Your task to perform on an android device: change your default location settings in chrome Image 0: 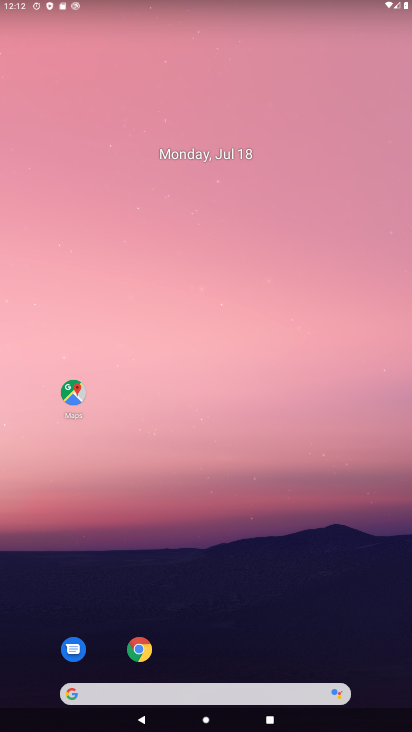
Step 0: drag from (170, 410) to (129, 150)
Your task to perform on an android device: change your default location settings in chrome Image 1: 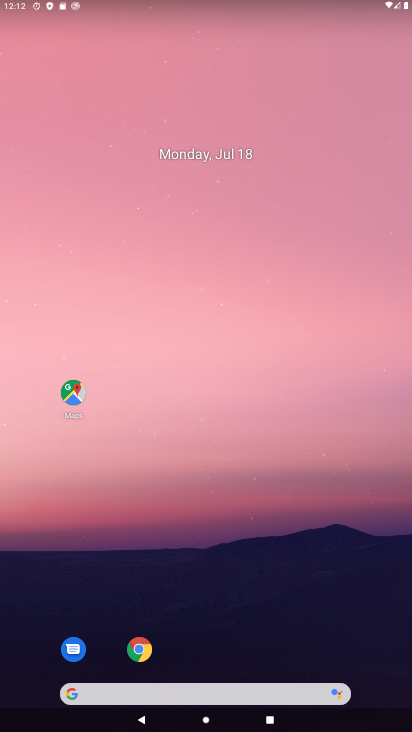
Step 1: drag from (303, 672) to (276, 122)
Your task to perform on an android device: change your default location settings in chrome Image 2: 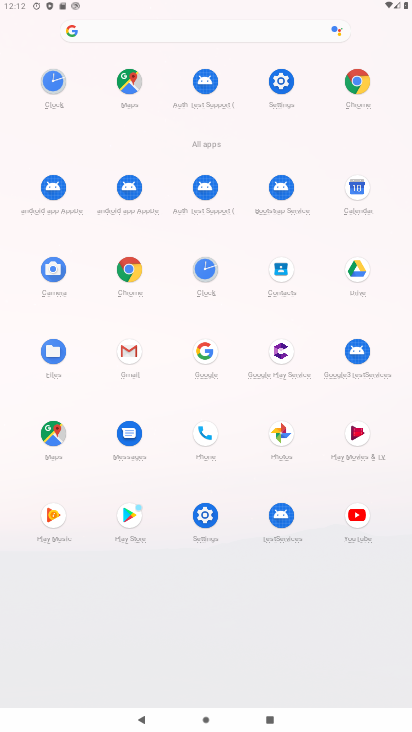
Step 2: drag from (221, 515) to (192, 211)
Your task to perform on an android device: change your default location settings in chrome Image 3: 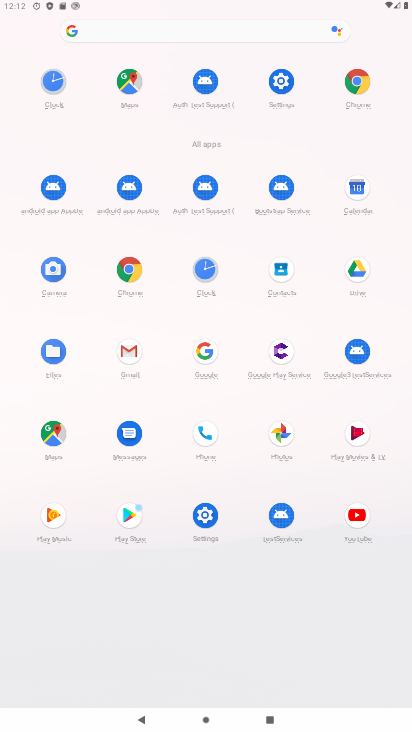
Step 3: click (355, 84)
Your task to perform on an android device: change your default location settings in chrome Image 4: 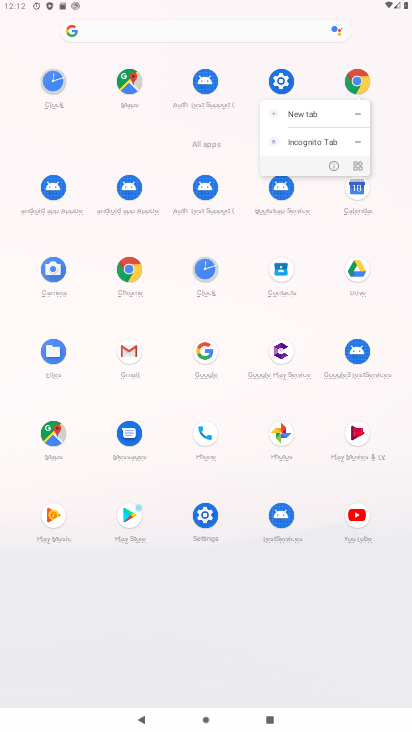
Step 4: click (355, 84)
Your task to perform on an android device: change your default location settings in chrome Image 5: 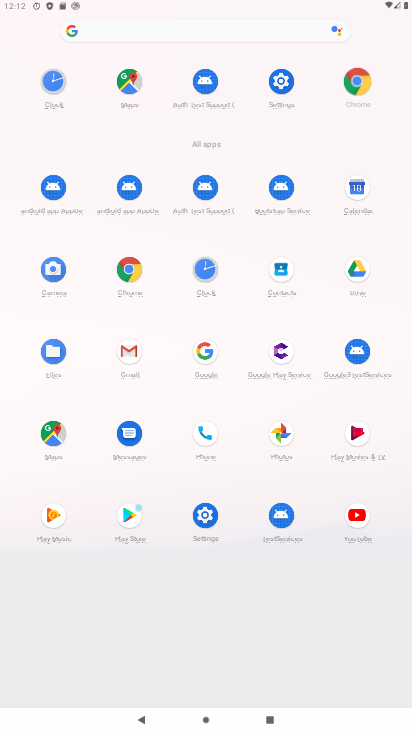
Step 5: click (356, 83)
Your task to perform on an android device: change your default location settings in chrome Image 6: 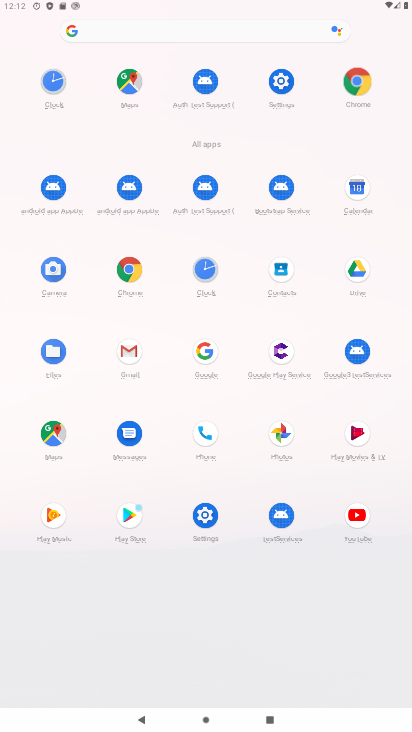
Step 6: click (353, 85)
Your task to perform on an android device: change your default location settings in chrome Image 7: 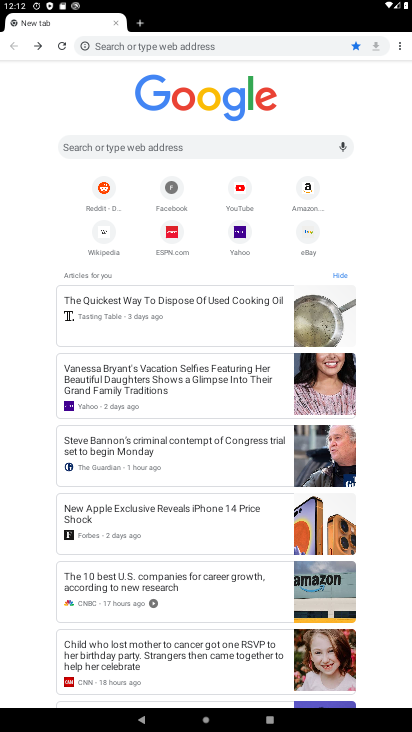
Step 7: drag from (400, 42) to (300, 234)
Your task to perform on an android device: change your default location settings in chrome Image 8: 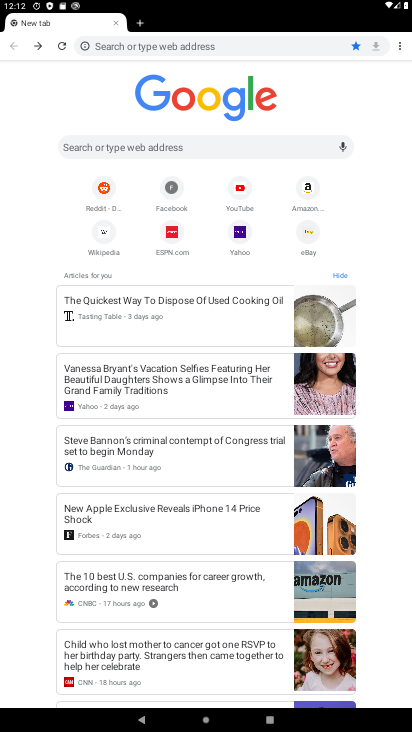
Step 8: click (299, 235)
Your task to perform on an android device: change your default location settings in chrome Image 9: 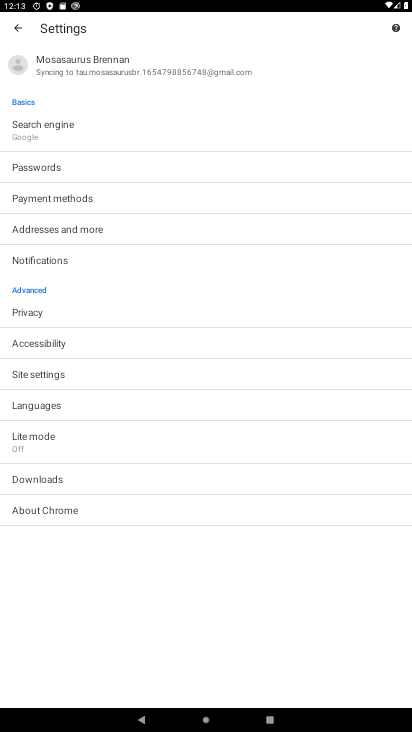
Step 9: click (31, 365)
Your task to perform on an android device: change your default location settings in chrome Image 10: 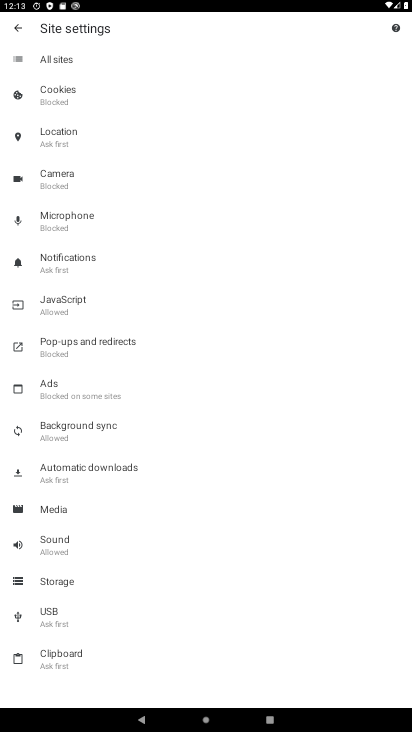
Step 10: click (49, 144)
Your task to perform on an android device: change your default location settings in chrome Image 11: 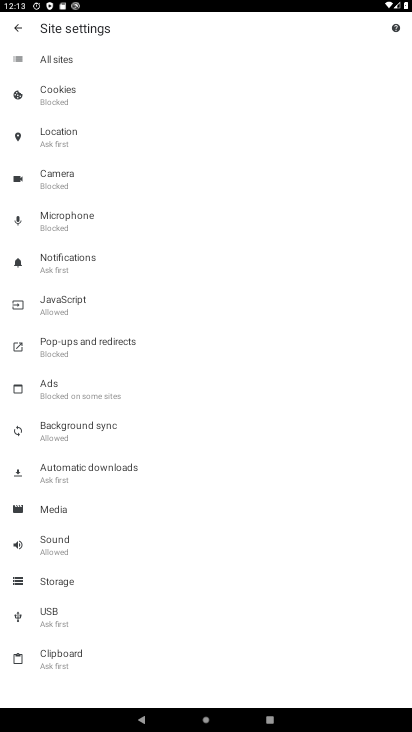
Step 11: click (49, 143)
Your task to perform on an android device: change your default location settings in chrome Image 12: 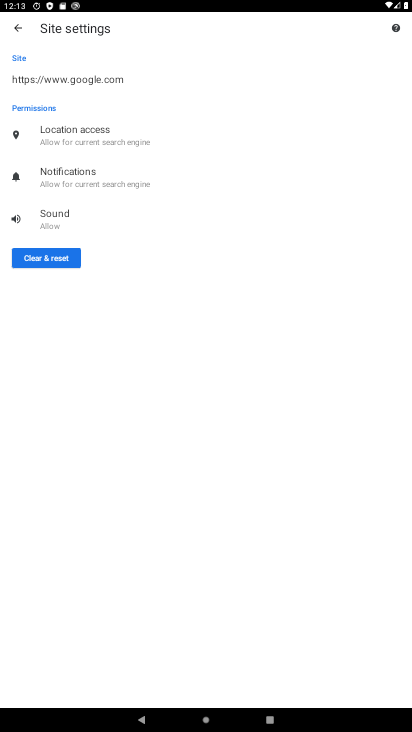
Step 12: click (47, 257)
Your task to perform on an android device: change your default location settings in chrome Image 13: 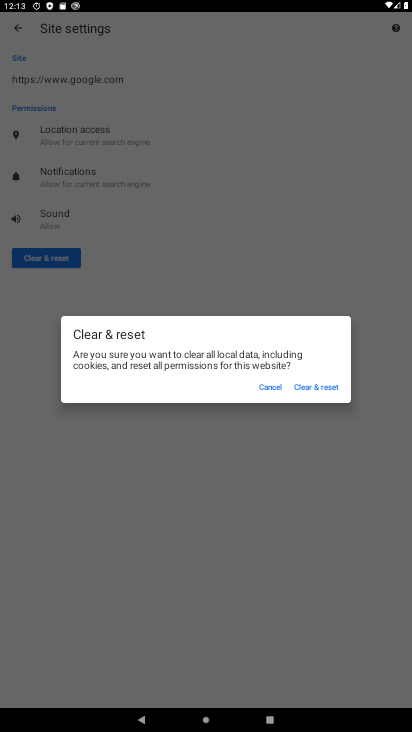
Step 13: task complete